Your task to perform on an android device: see creations saved in the google photos Image 0: 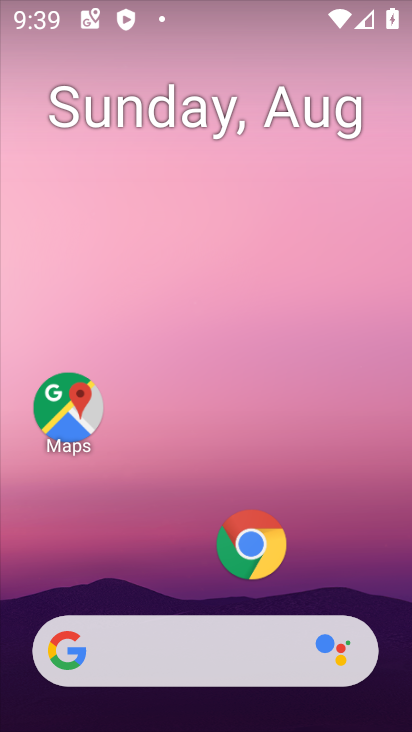
Step 0: drag from (216, 625) to (387, 49)
Your task to perform on an android device: see creations saved in the google photos Image 1: 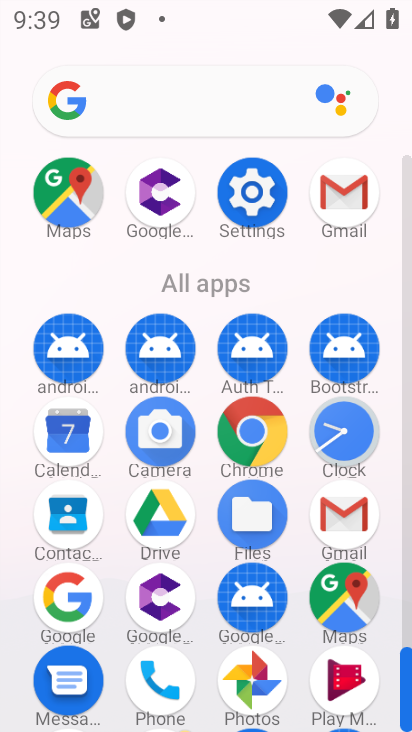
Step 1: click (244, 698)
Your task to perform on an android device: see creations saved in the google photos Image 2: 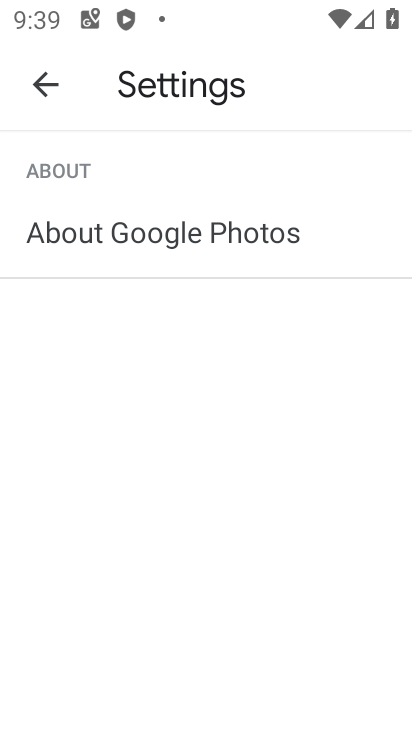
Step 2: click (44, 79)
Your task to perform on an android device: see creations saved in the google photos Image 3: 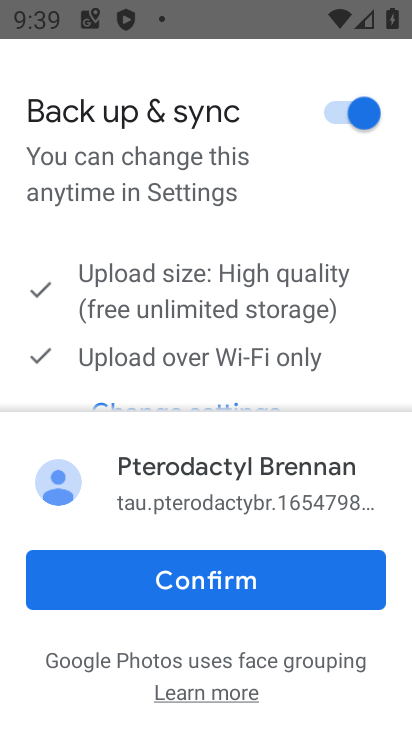
Step 3: click (207, 587)
Your task to perform on an android device: see creations saved in the google photos Image 4: 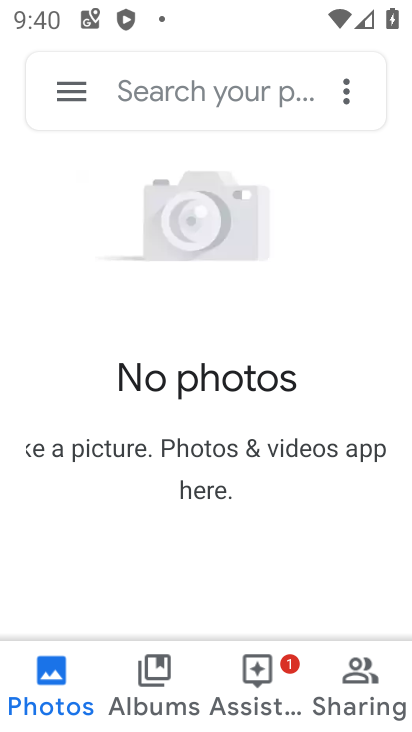
Step 4: click (201, 75)
Your task to perform on an android device: see creations saved in the google photos Image 5: 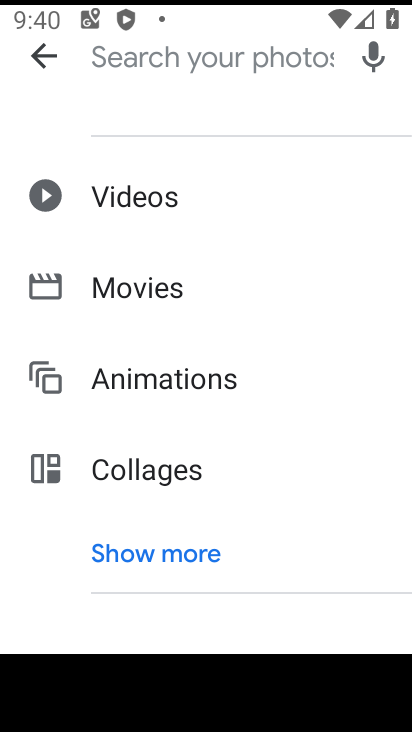
Step 5: click (162, 567)
Your task to perform on an android device: see creations saved in the google photos Image 6: 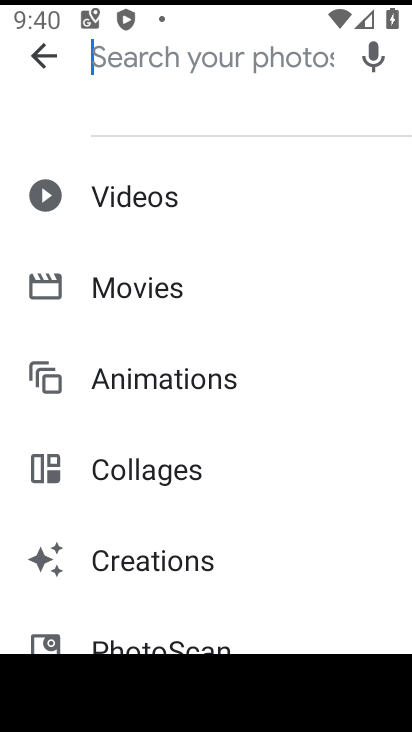
Step 6: drag from (162, 568) to (159, 180)
Your task to perform on an android device: see creations saved in the google photos Image 7: 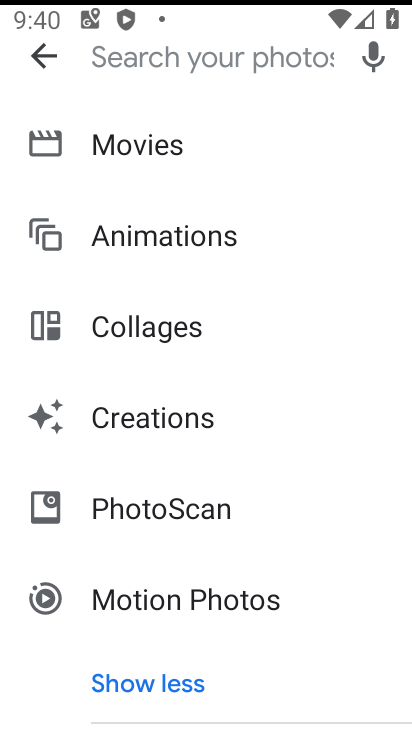
Step 7: click (146, 393)
Your task to perform on an android device: see creations saved in the google photos Image 8: 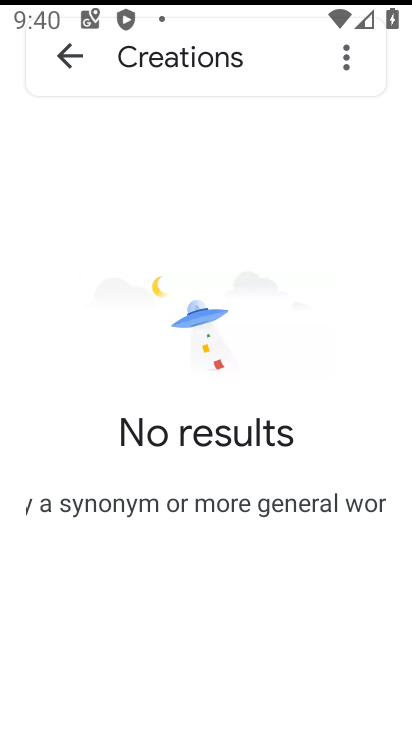
Step 8: task complete